Your task to perform on an android device: uninstall "Instagram" Image 0: 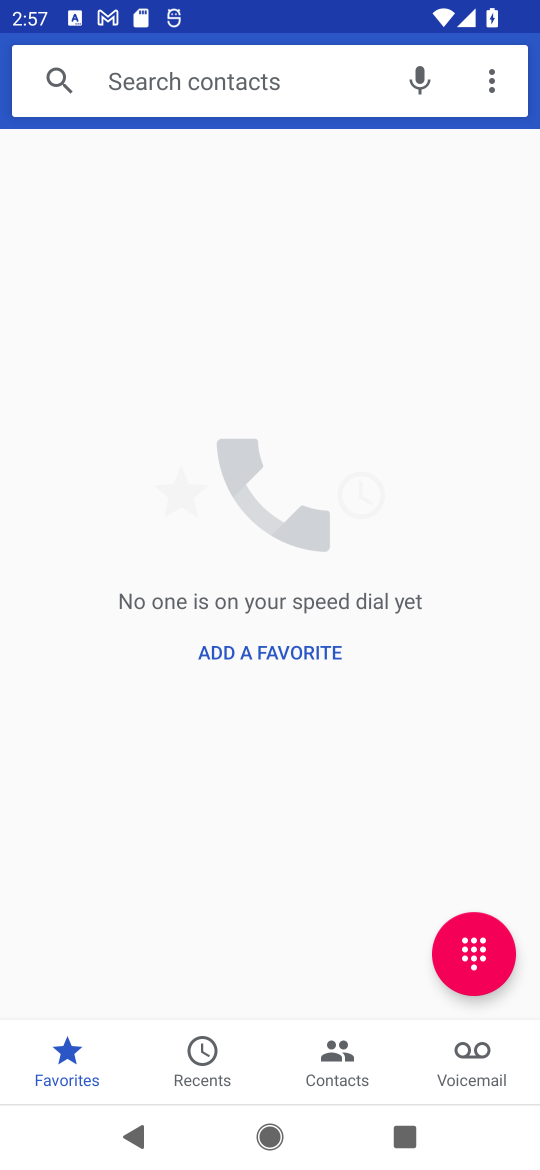
Step 0: press home button
Your task to perform on an android device: uninstall "Instagram" Image 1: 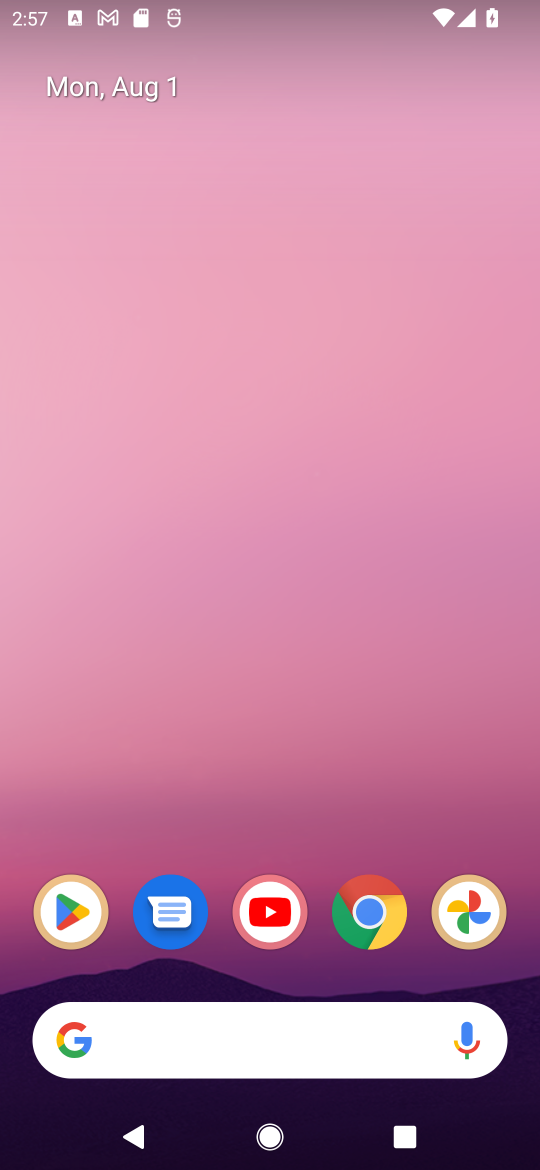
Step 1: click (55, 914)
Your task to perform on an android device: uninstall "Instagram" Image 2: 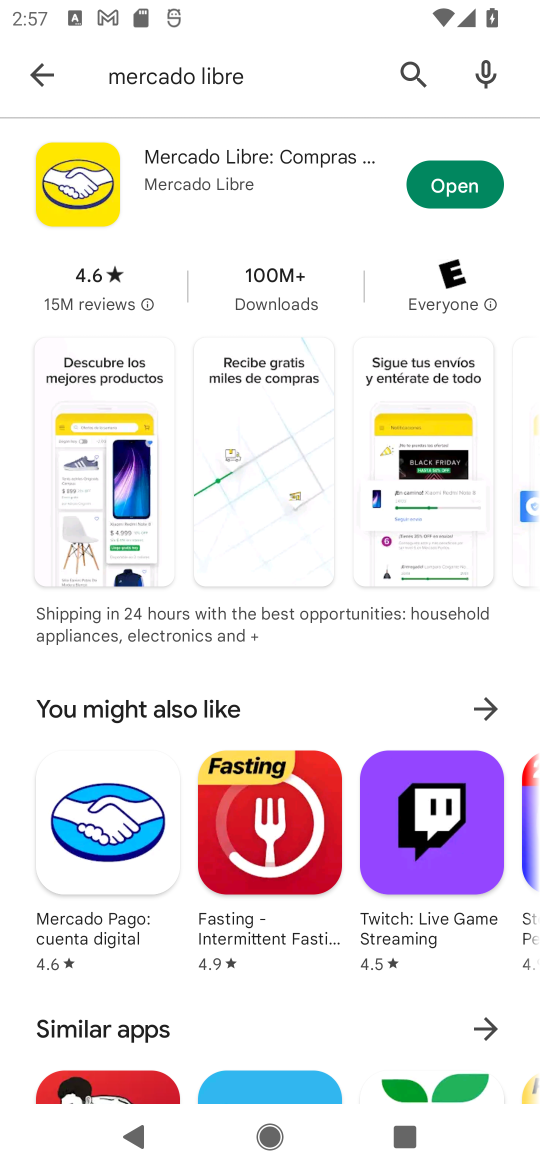
Step 2: click (404, 68)
Your task to perform on an android device: uninstall "Instagram" Image 3: 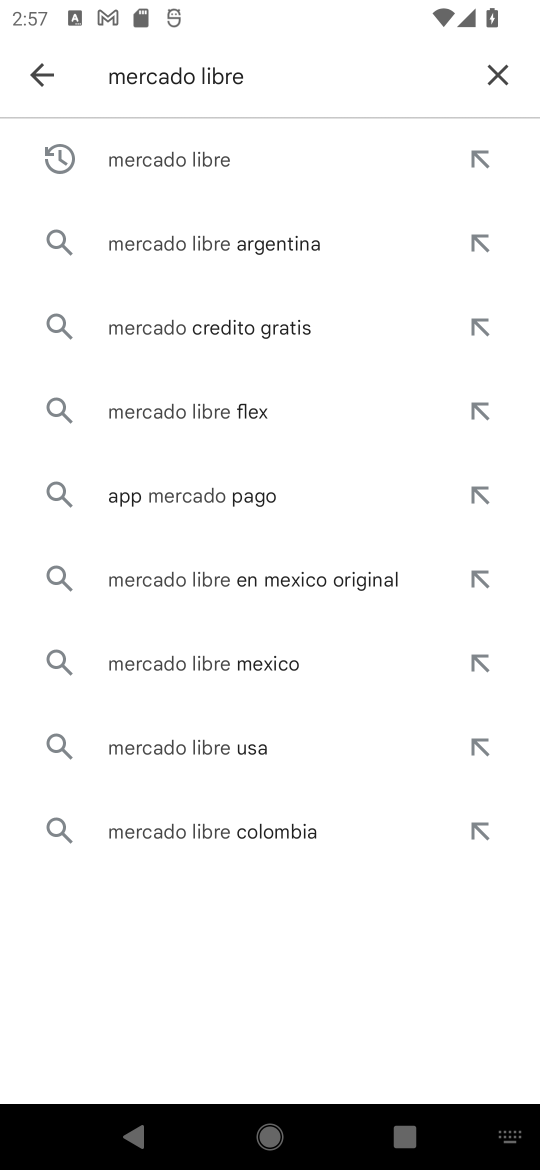
Step 3: click (494, 79)
Your task to perform on an android device: uninstall "Instagram" Image 4: 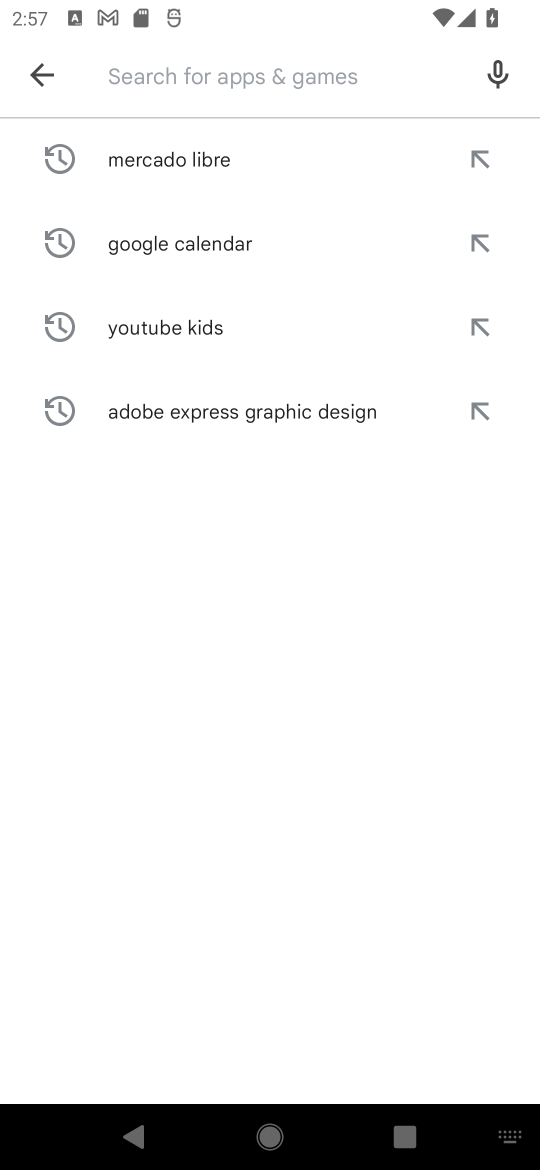
Step 4: click (207, 79)
Your task to perform on an android device: uninstall "Instagram" Image 5: 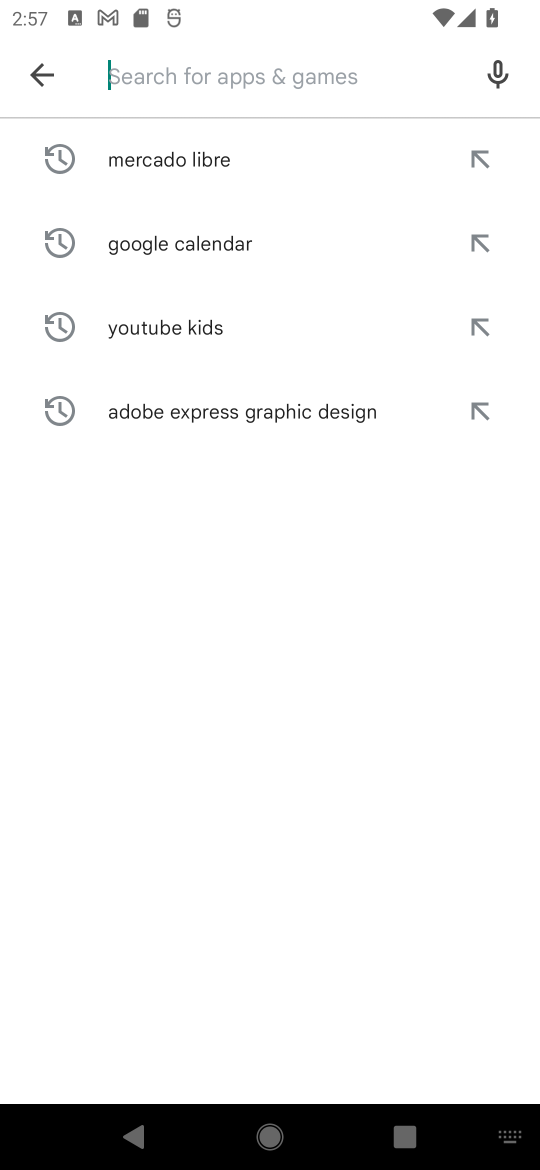
Step 5: type "Instagram"
Your task to perform on an android device: uninstall "Instagram" Image 6: 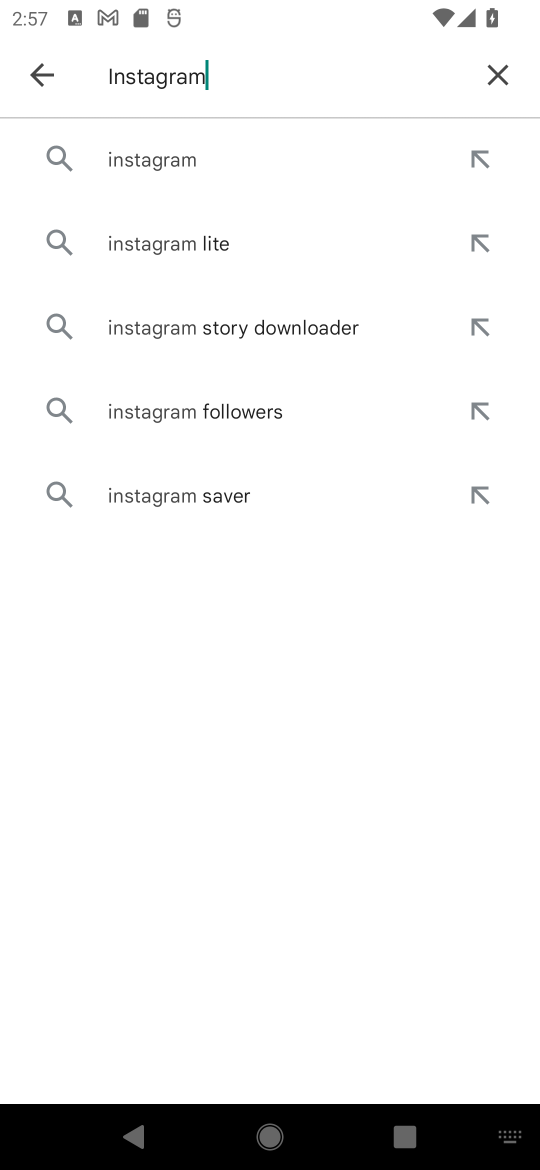
Step 6: click (206, 165)
Your task to perform on an android device: uninstall "Instagram" Image 7: 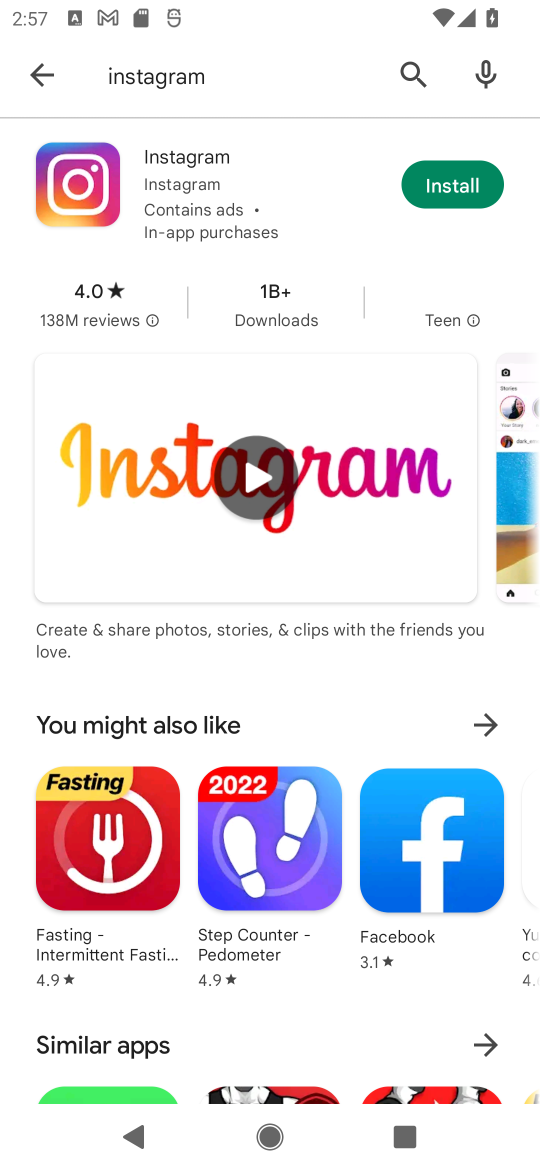
Step 7: task complete